Your task to perform on an android device: check data usage Image 0: 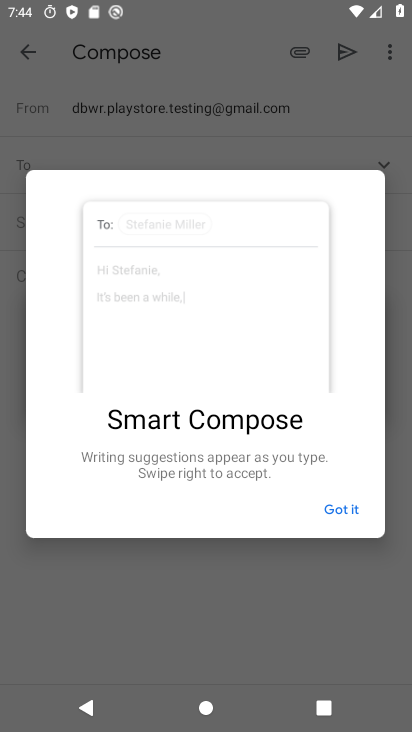
Step 0: press home button
Your task to perform on an android device: check data usage Image 1: 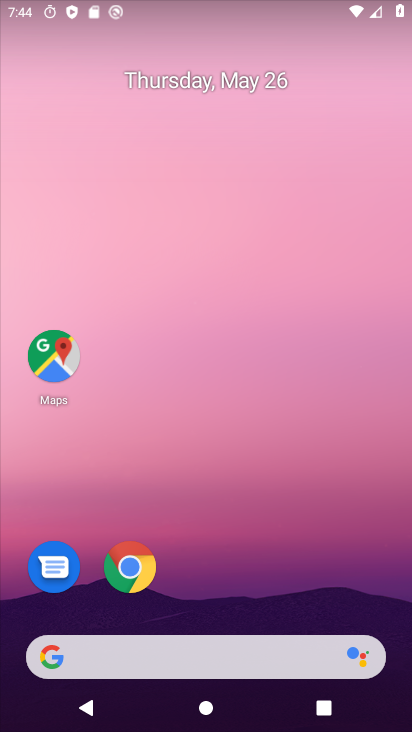
Step 1: drag from (151, 645) to (317, 86)
Your task to perform on an android device: check data usage Image 2: 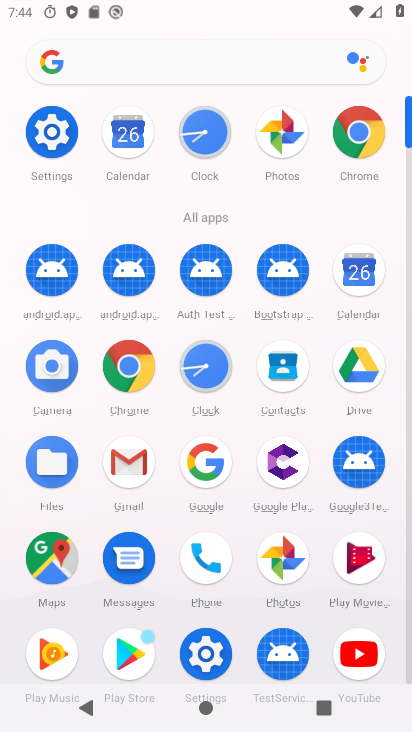
Step 2: click (55, 135)
Your task to perform on an android device: check data usage Image 3: 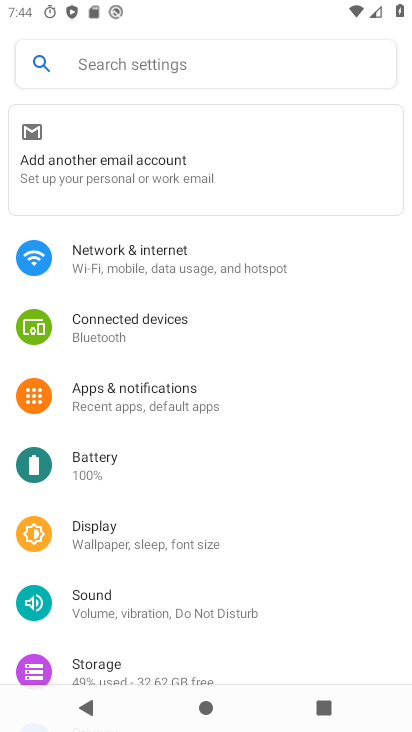
Step 3: click (162, 264)
Your task to perform on an android device: check data usage Image 4: 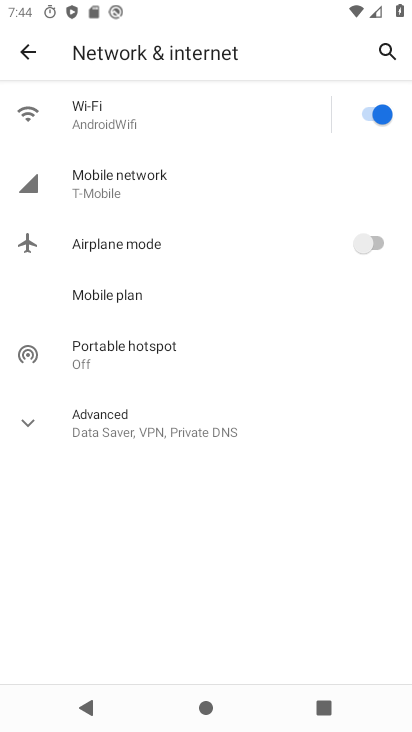
Step 4: click (116, 125)
Your task to perform on an android device: check data usage Image 5: 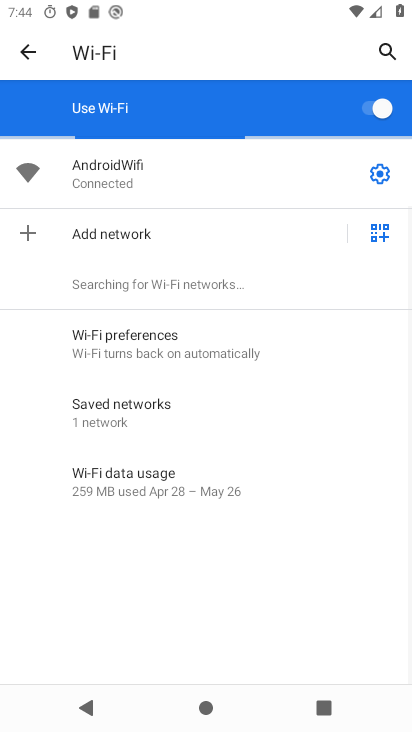
Step 5: click (127, 478)
Your task to perform on an android device: check data usage Image 6: 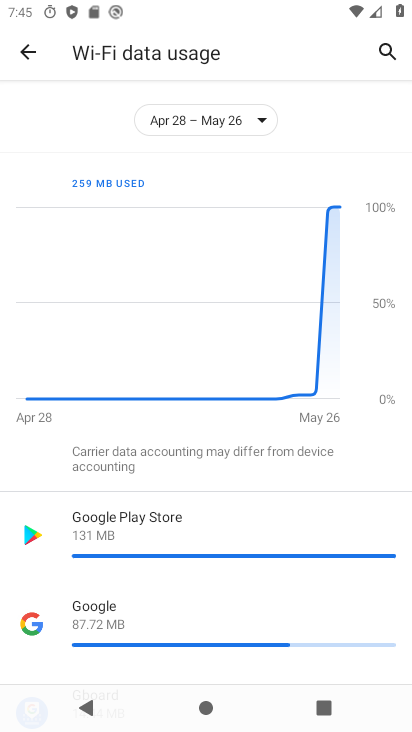
Step 6: task complete